Your task to perform on an android device: add a contact Image 0: 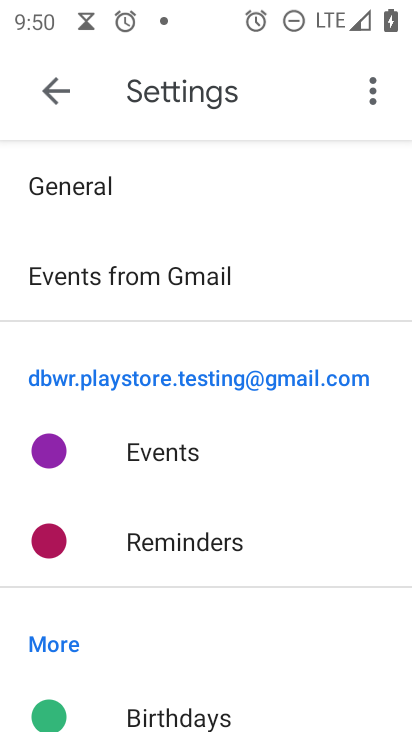
Step 0: press back button
Your task to perform on an android device: add a contact Image 1: 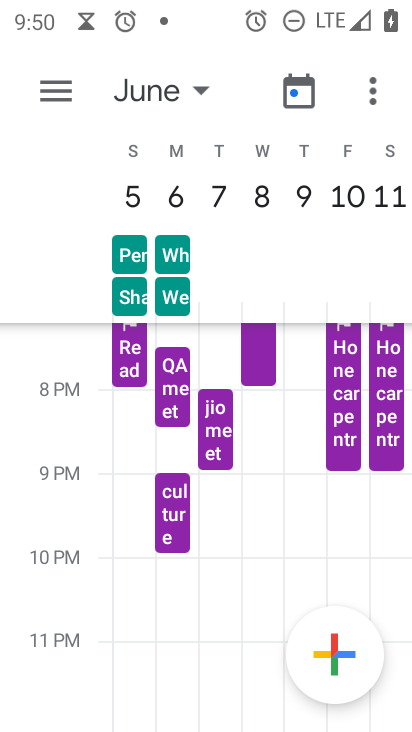
Step 1: press home button
Your task to perform on an android device: add a contact Image 2: 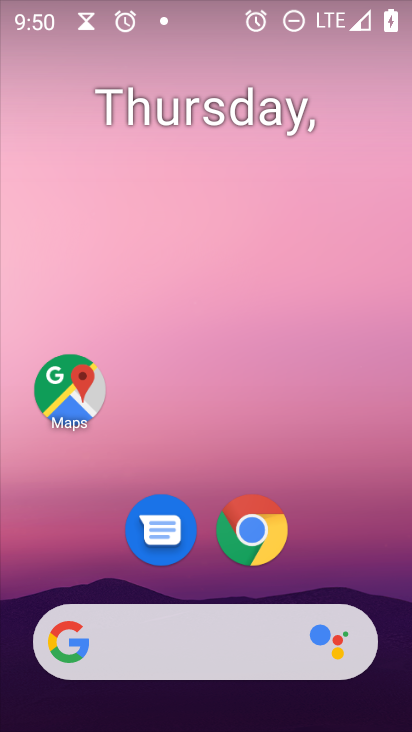
Step 2: drag from (328, 581) to (308, 45)
Your task to perform on an android device: add a contact Image 3: 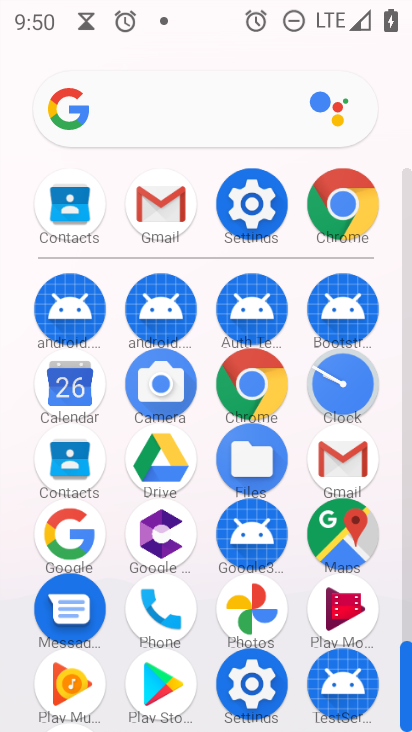
Step 3: click (59, 202)
Your task to perform on an android device: add a contact Image 4: 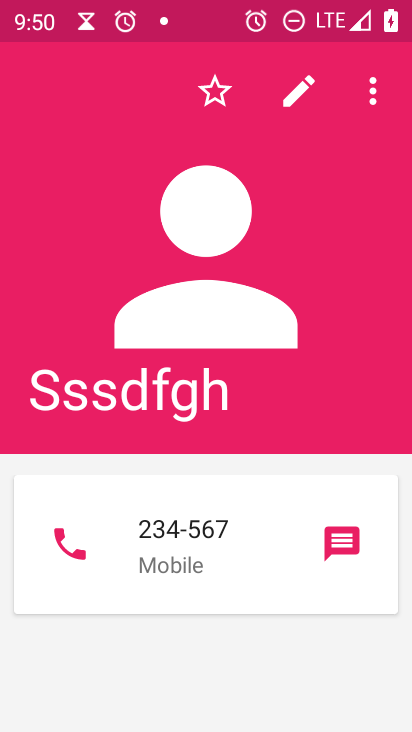
Step 4: press back button
Your task to perform on an android device: add a contact Image 5: 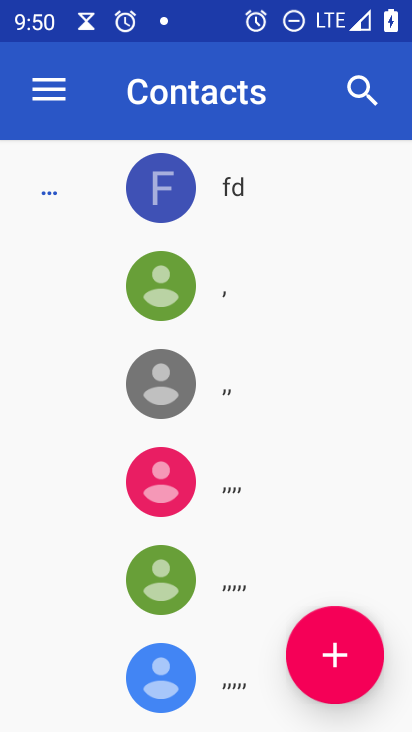
Step 5: click (334, 660)
Your task to perform on an android device: add a contact Image 6: 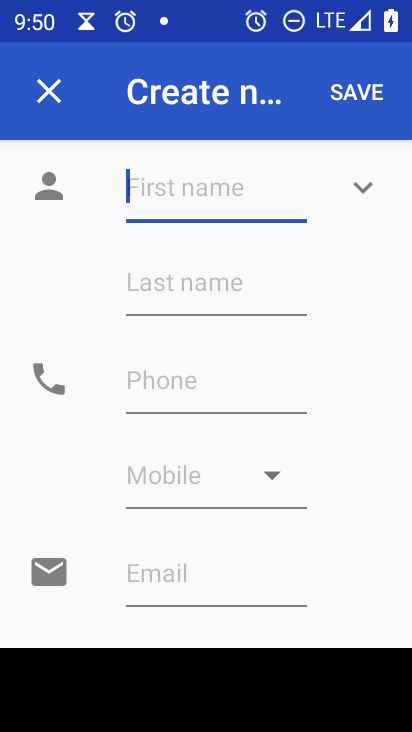
Step 6: type "Xcvbbbb"
Your task to perform on an android device: add a contact Image 7: 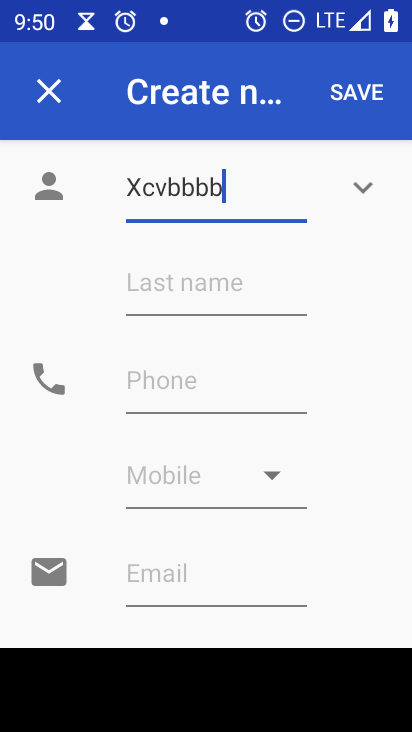
Step 7: type ""
Your task to perform on an android device: add a contact Image 8: 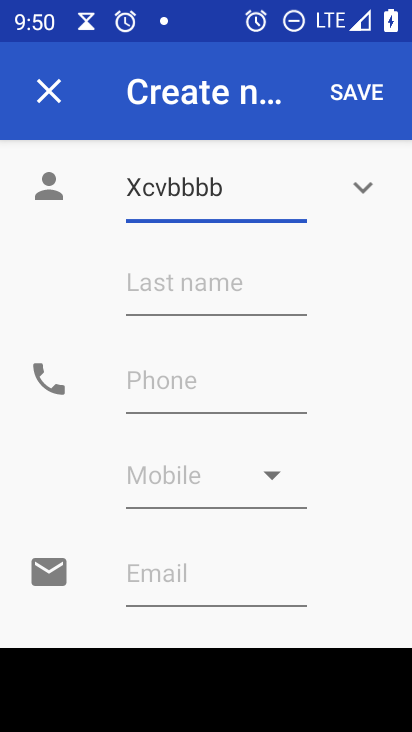
Step 8: click (167, 389)
Your task to perform on an android device: add a contact Image 9: 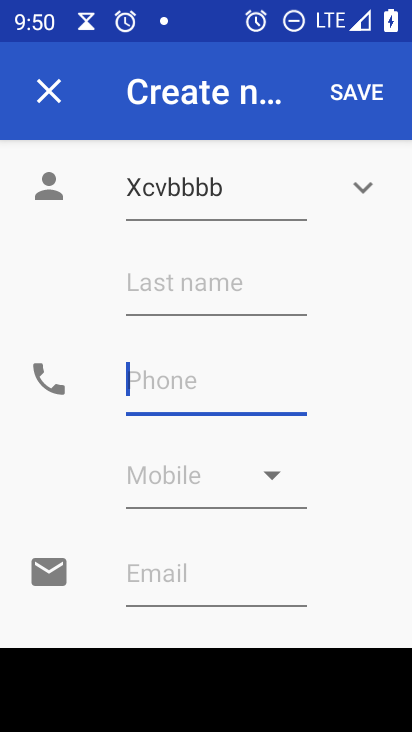
Step 9: type "234567"
Your task to perform on an android device: add a contact Image 10: 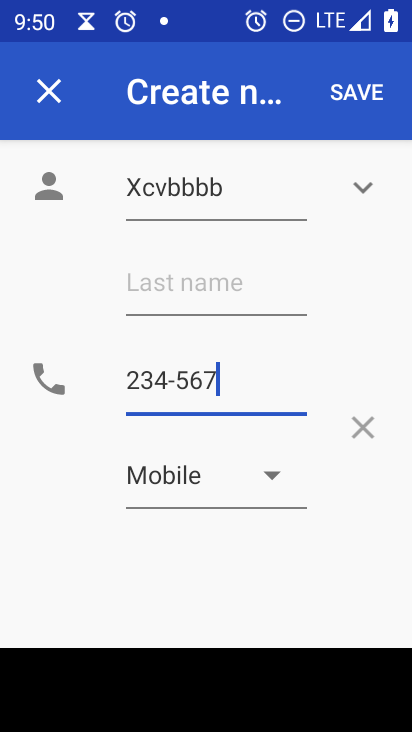
Step 10: type ""
Your task to perform on an android device: add a contact Image 11: 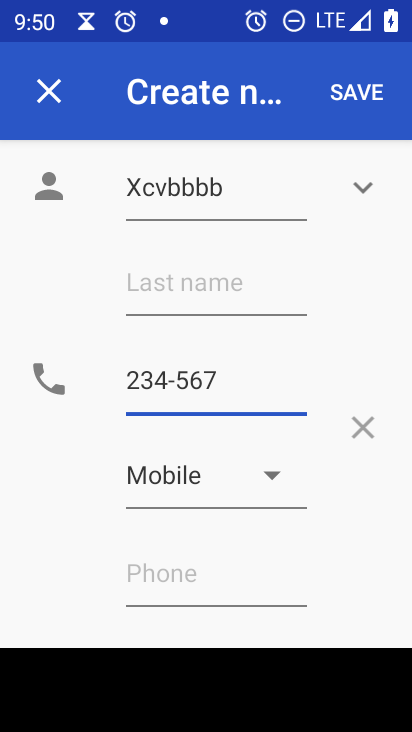
Step 11: click (339, 91)
Your task to perform on an android device: add a contact Image 12: 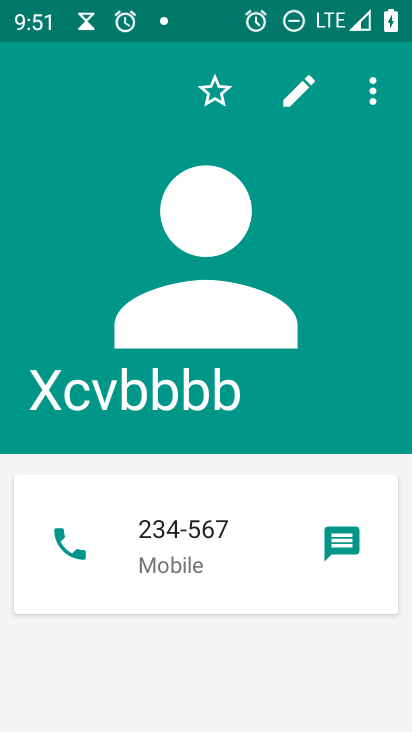
Step 12: task complete